Your task to perform on an android device: Show me the alarms in the clock app Image 0: 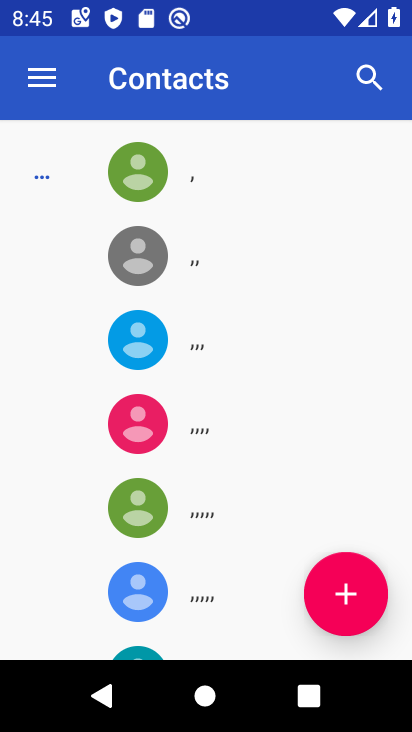
Step 0: drag from (219, 598) to (229, 522)
Your task to perform on an android device: Show me the alarms in the clock app Image 1: 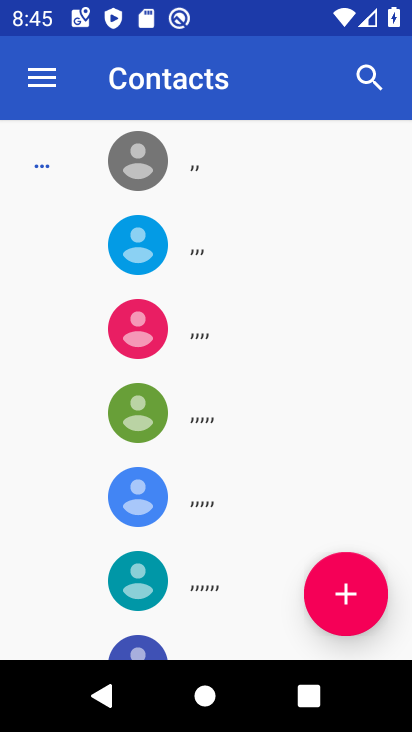
Step 1: drag from (206, 621) to (270, 359)
Your task to perform on an android device: Show me the alarms in the clock app Image 2: 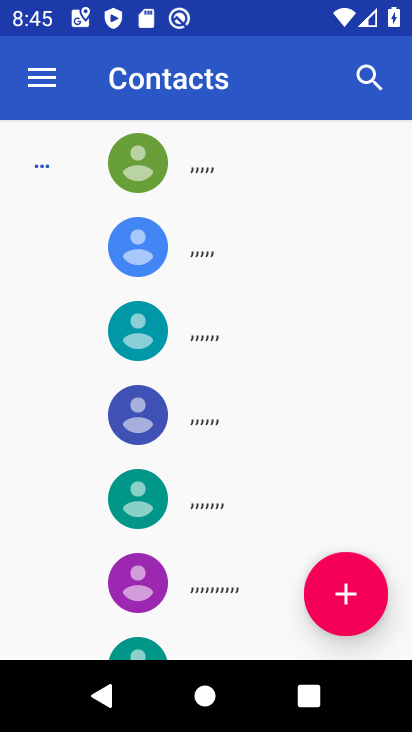
Step 2: drag from (280, 244) to (246, 721)
Your task to perform on an android device: Show me the alarms in the clock app Image 3: 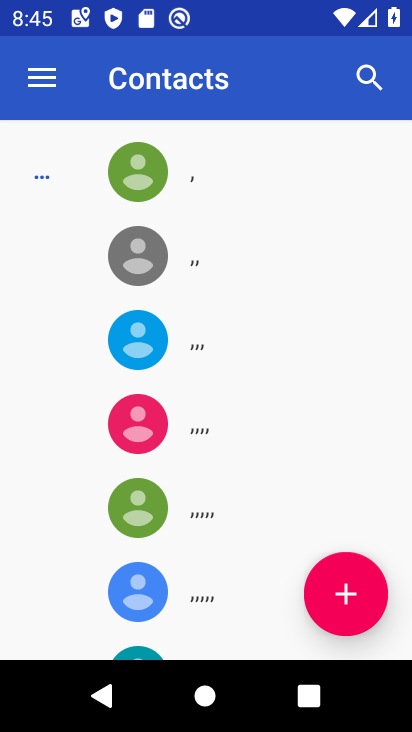
Step 3: press home button
Your task to perform on an android device: Show me the alarms in the clock app Image 4: 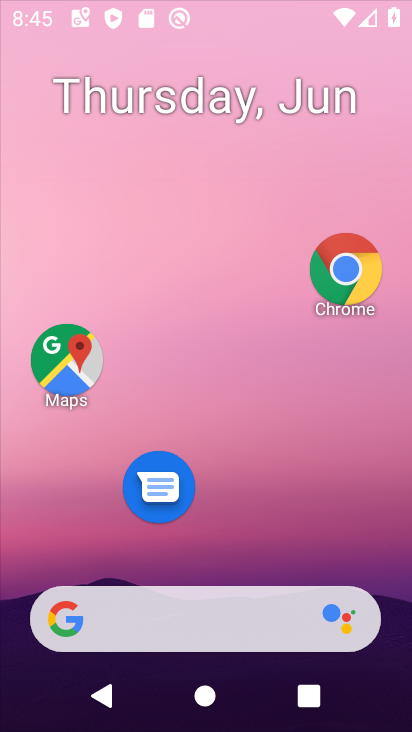
Step 4: drag from (249, 458) to (257, 0)
Your task to perform on an android device: Show me the alarms in the clock app Image 5: 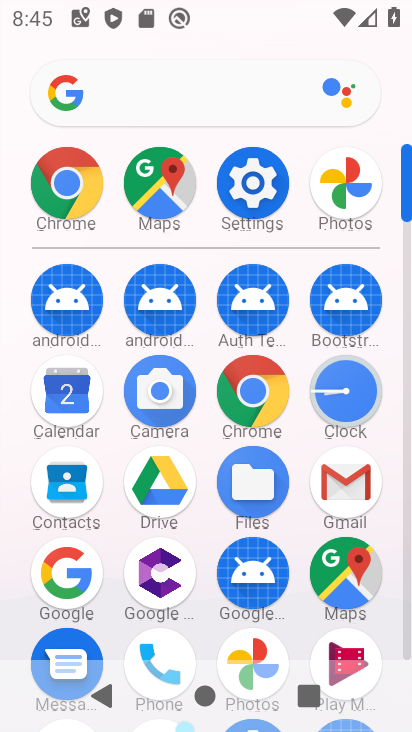
Step 5: click (351, 410)
Your task to perform on an android device: Show me the alarms in the clock app Image 6: 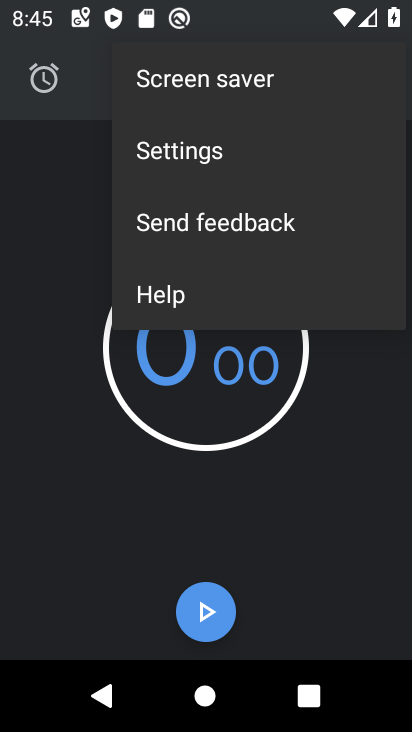
Step 6: click (254, 157)
Your task to perform on an android device: Show me the alarms in the clock app Image 7: 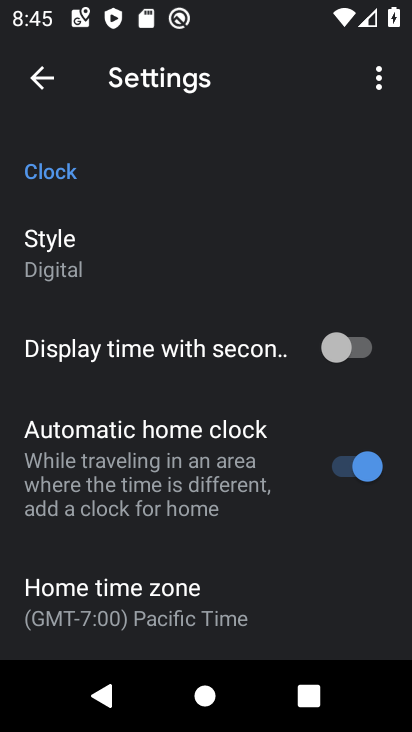
Step 7: click (67, 73)
Your task to perform on an android device: Show me the alarms in the clock app Image 8: 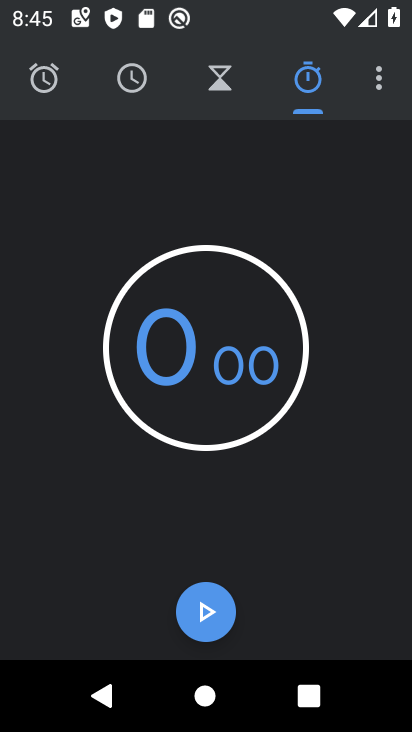
Step 8: click (57, 75)
Your task to perform on an android device: Show me the alarms in the clock app Image 9: 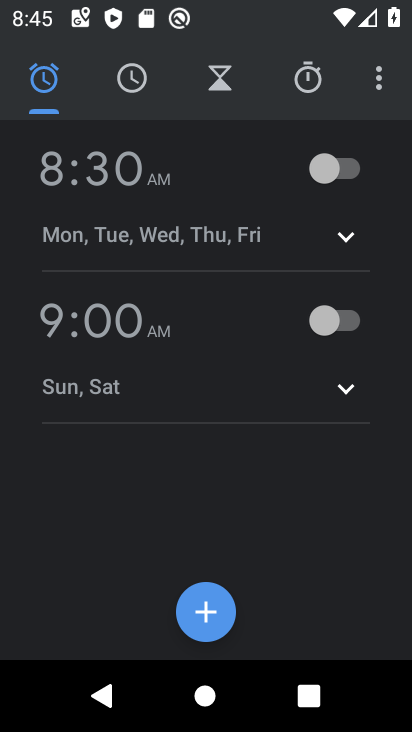
Step 9: drag from (194, 501) to (242, 259)
Your task to perform on an android device: Show me the alarms in the clock app Image 10: 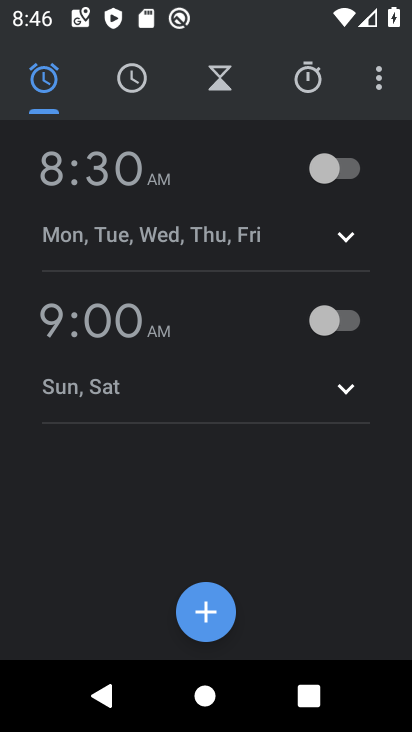
Step 10: drag from (207, 524) to (262, 295)
Your task to perform on an android device: Show me the alarms in the clock app Image 11: 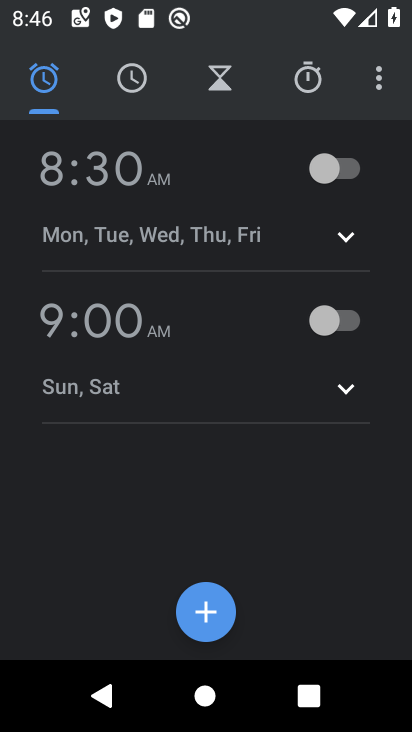
Step 11: drag from (224, 556) to (330, 178)
Your task to perform on an android device: Show me the alarms in the clock app Image 12: 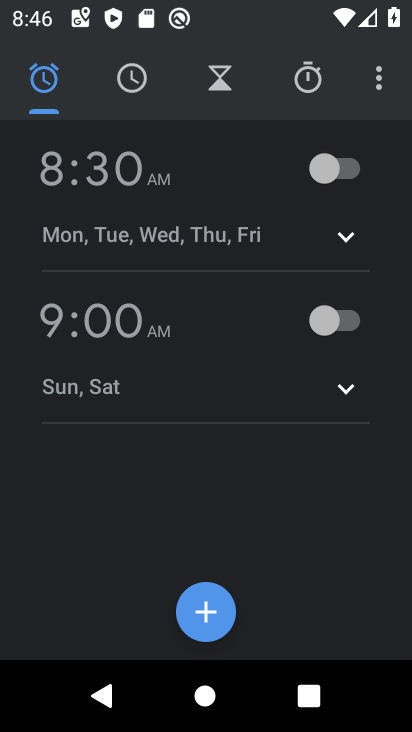
Step 12: drag from (269, 507) to (321, 285)
Your task to perform on an android device: Show me the alarms in the clock app Image 13: 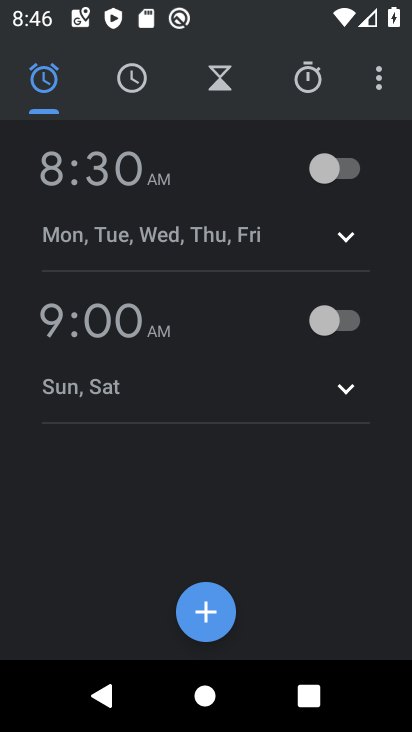
Step 13: drag from (275, 520) to (316, 282)
Your task to perform on an android device: Show me the alarms in the clock app Image 14: 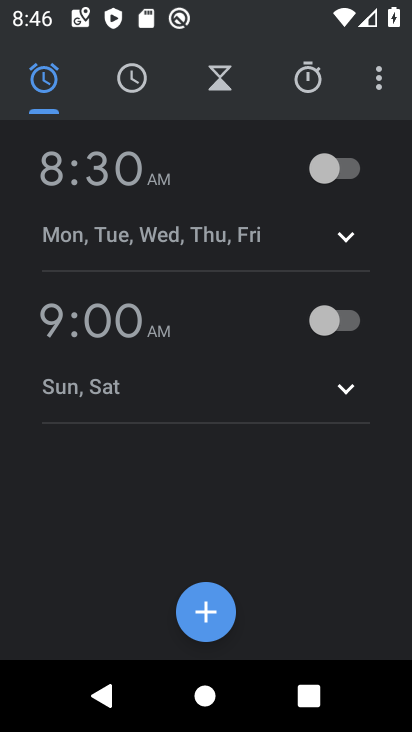
Step 14: click (308, 71)
Your task to perform on an android device: Show me the alarms in the clock app Image 15: 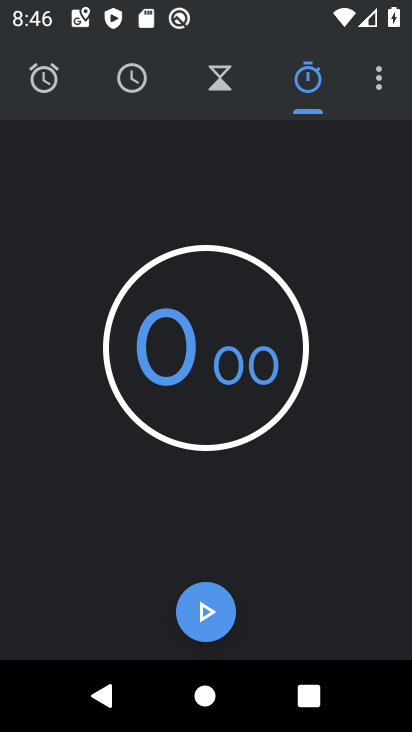
Step 15: click (13, 84)
Your task to perform on an android device: Show me the alarms in the clock app Image 16: 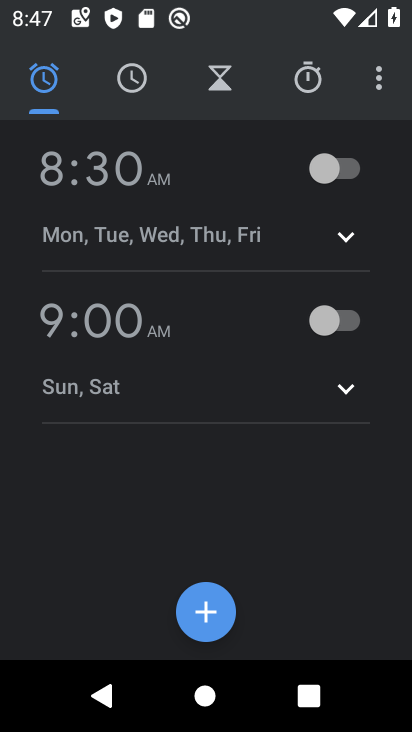
Step 16: click (129, 74)
Your task to perform on an android device: Show me the alarms in the clock app Image 17: 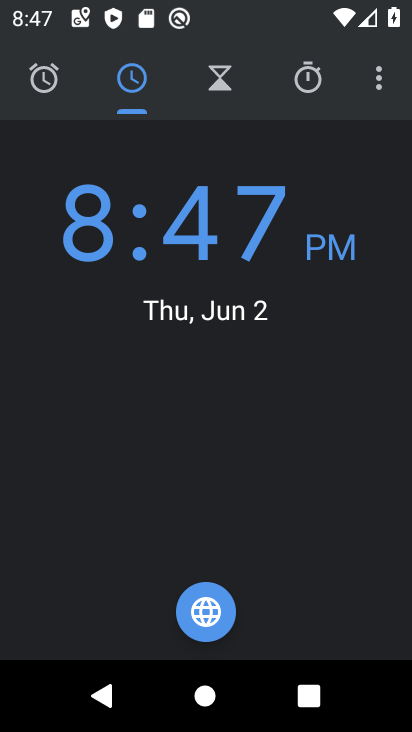
Step 17: click (60, 80)
Your task to perform on an android device: Show me the alarms in the clock app Image 18: 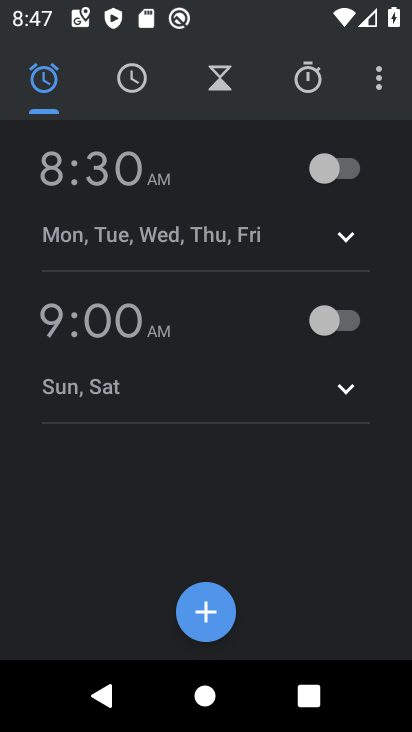
Step 18: task complete